Your task to perform on an android device: Search for good Japanese restaurants Image 0: 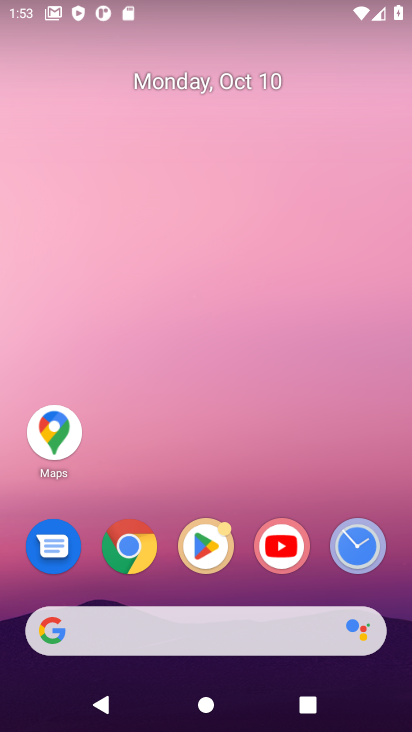
Step 0: click (123, 549)
Your task to perform on an android device: Search for good Japanese restaurants Image 1: 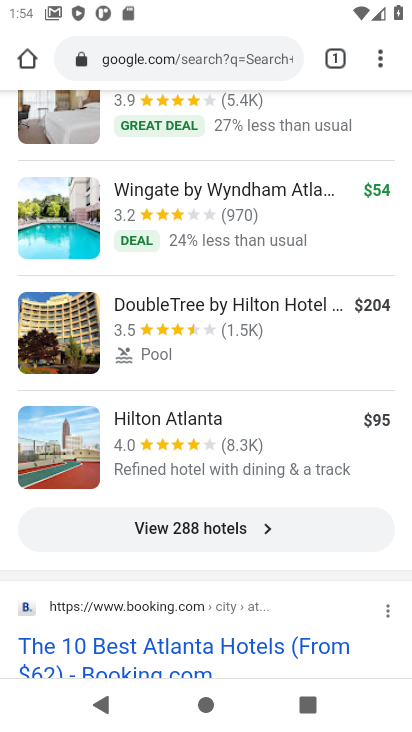
Step 1: click (229, 66)
Your task to perform on an android device: Search for good Japanese restaurants Image 2: 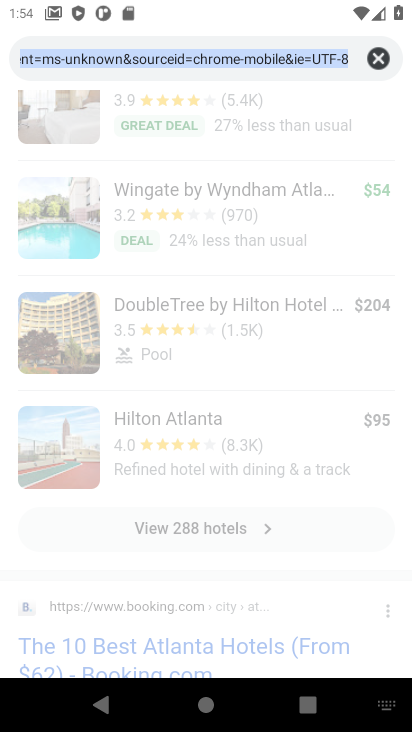
Step 2: click (221, 54)
Your task to perform on an android device: Search for good Japanese restaurants Image 3: 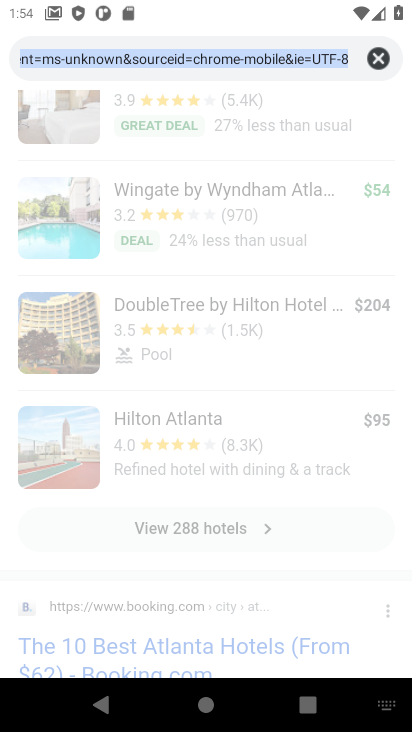
Step 3: click (221, 54)
Your task to perform on an android device: Search for good Japanese restaurants Image 4: 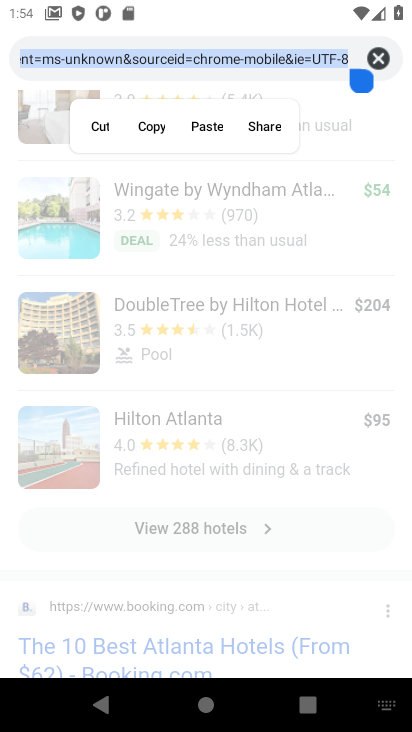
Step 4: click (382, 59)
Your task to perform on an android device: Search for good Japanese restaurants Image 5: 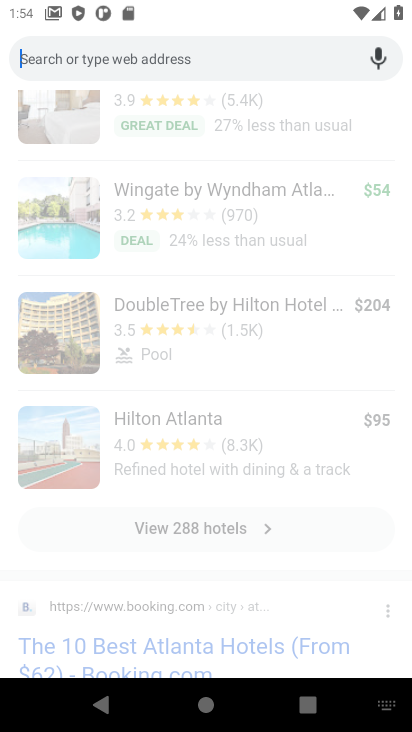
Step 5: type "Search for good Japanese restaurants"
Your task to perform on an android device: Search for good Japanese restaurants Image 6: 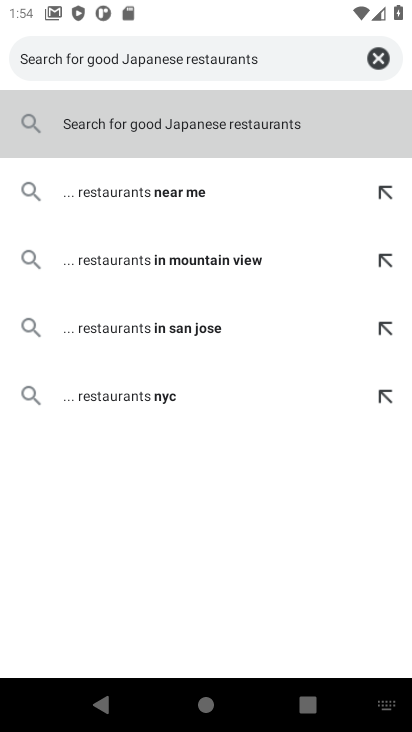
Step 6: click (299, 126)
Your task to perform on an android device: Search for good Japanese restaurants Image 7: 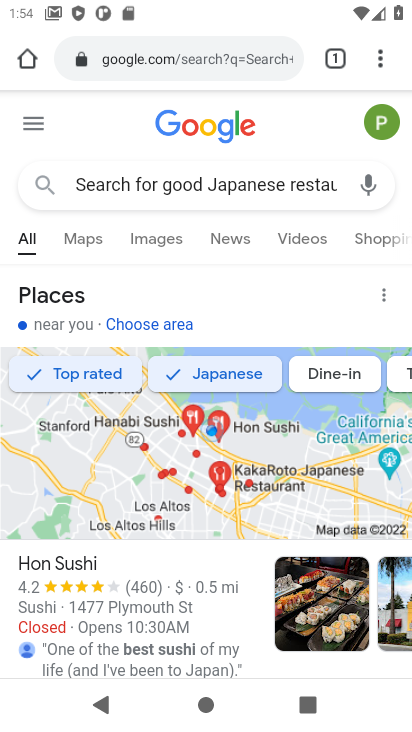
Step 7: task complete